Your task to perform on an android device: Open Maps and search for coffee Image 0: 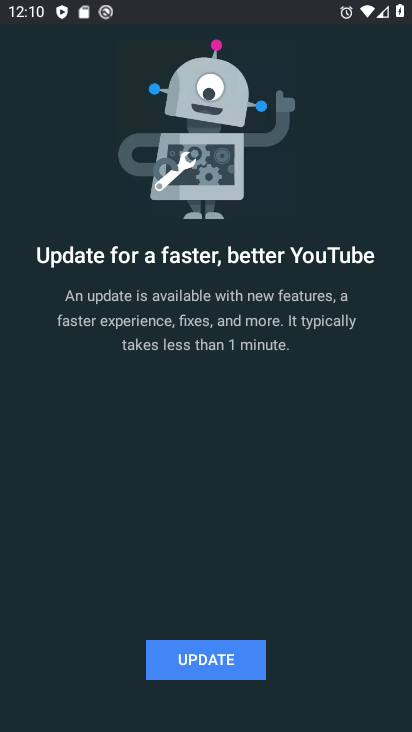
Step 0: press home button
Your task to perform on an android device: Open Maps and search for coffee Image 1: 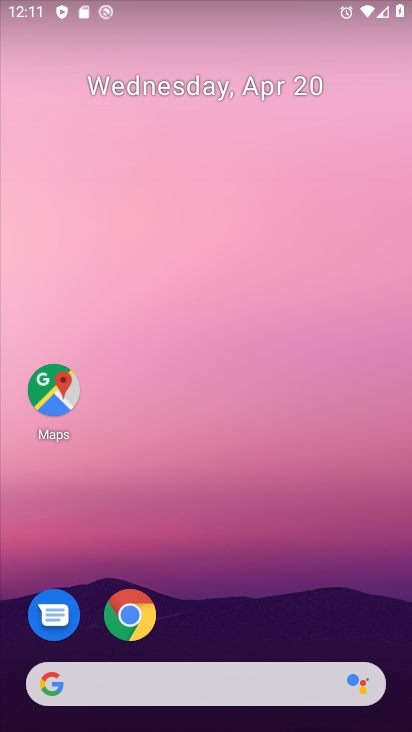
Step 1: click (394, 200)
Your task to perform on an android device: Open Maps and search for coffee Image 2: 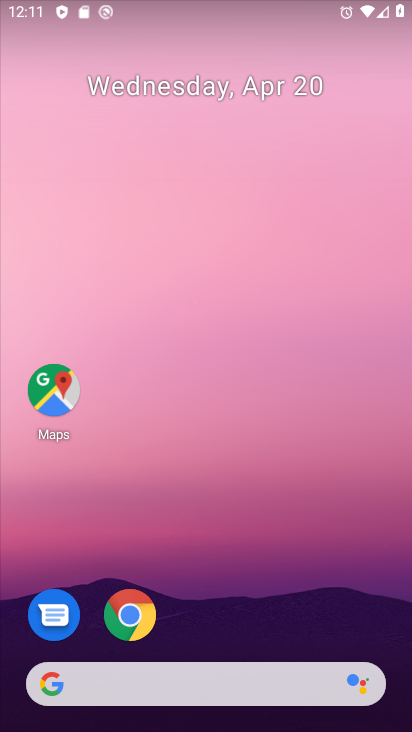
Step 2: drag from (395, 240) to (387, 123)
Your task to perform on an android device: Open Maps and search for coffee Image 3: 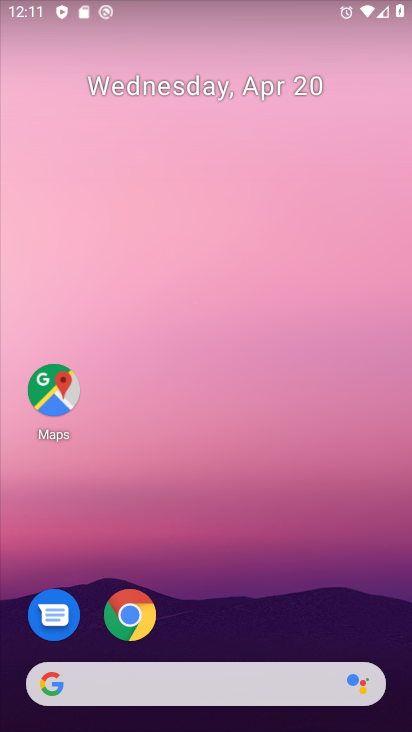
Step 3: drag from (376, 592) to (349, 201)
Your task to perform on an android device: Open Maps and search for coffee Image 4: 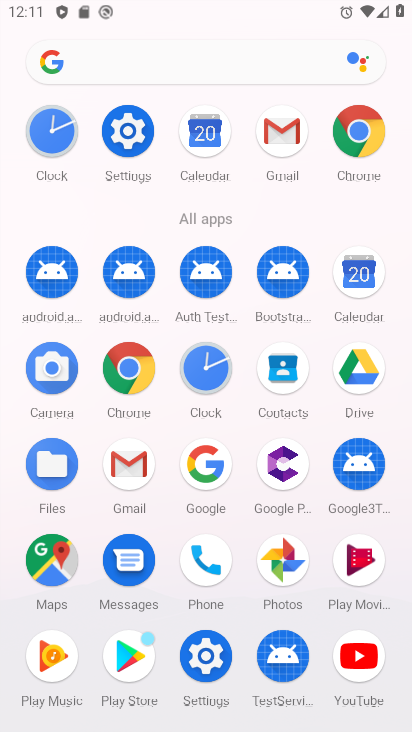
Step 4: click (48, 546)
Your task to perform on an android device: Open Maps and search for coffee Image 5: 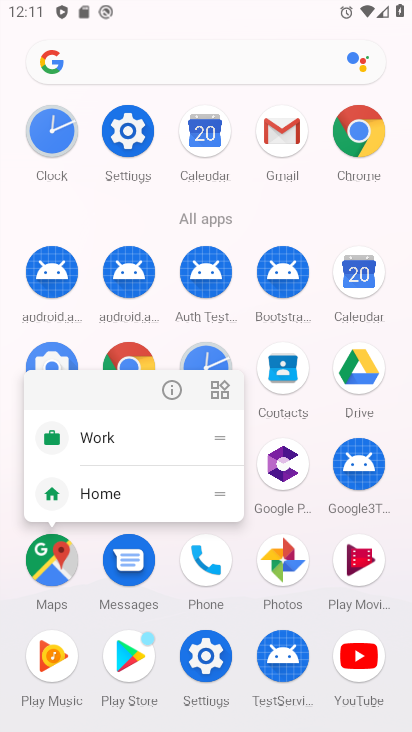
Step 5: click (50, 549)
Your task to perform on an android device: Open Maps and search for coffee Image 6: 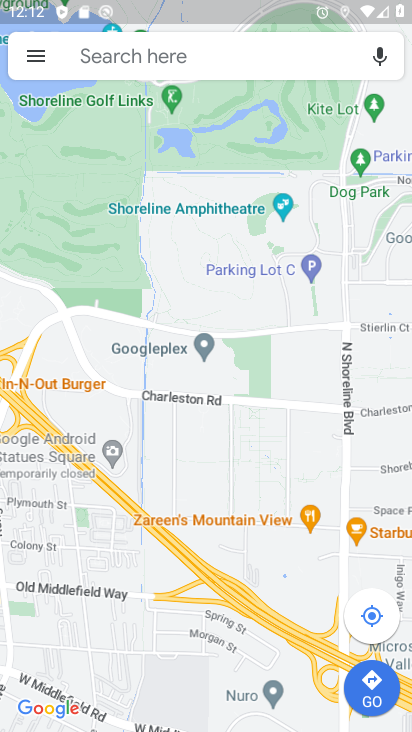
Step 6: click (149, 62)
Your task to perform on an android device: Open Maps and search for coffee Image 7: 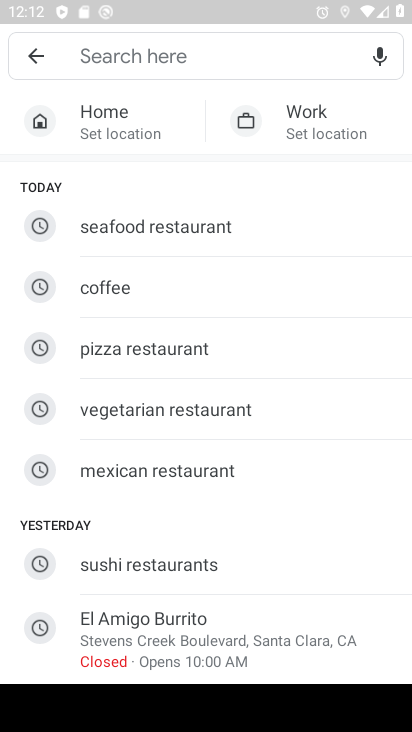
Step 7: type "coffee"
Your task to perform on an android device: Open Maps and search for coffee Image 8: 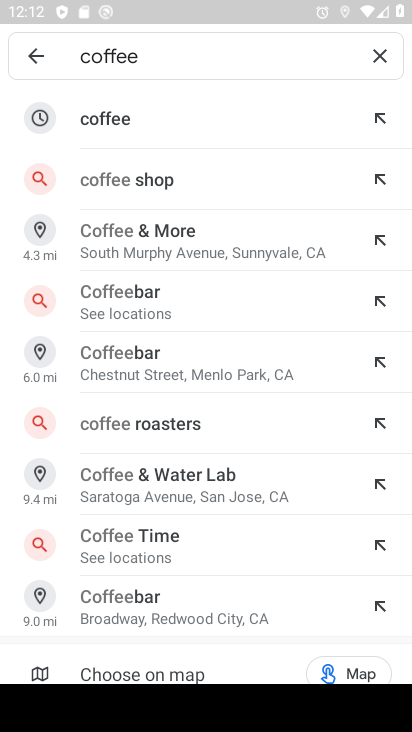
Step 8: click (111, 124)
Your task to perform on an android device: Open Maps and search for coffee Image 9: 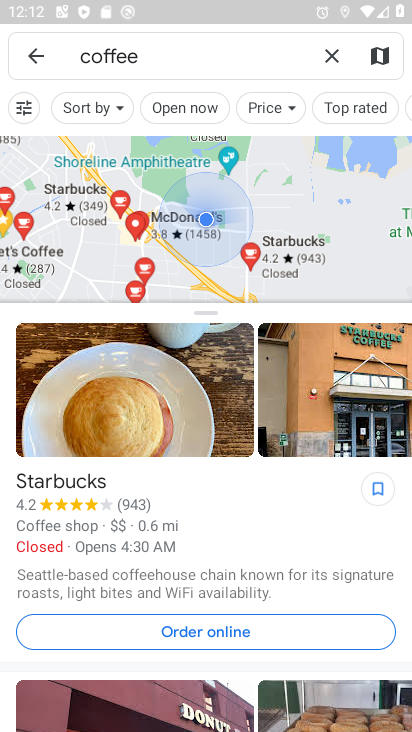
Step 9: task complete